Your task to perform on an android device: turn on translation in the chrome app Image 0: 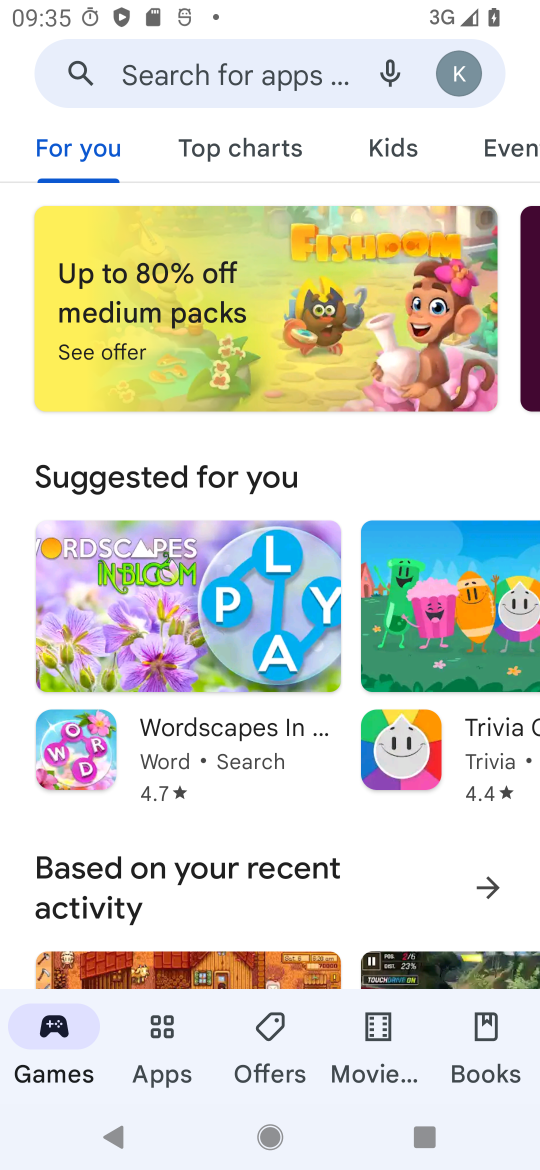
Step 0: press home button
Your task to perform on an android device: turn on translation in the chrome app Image 1: 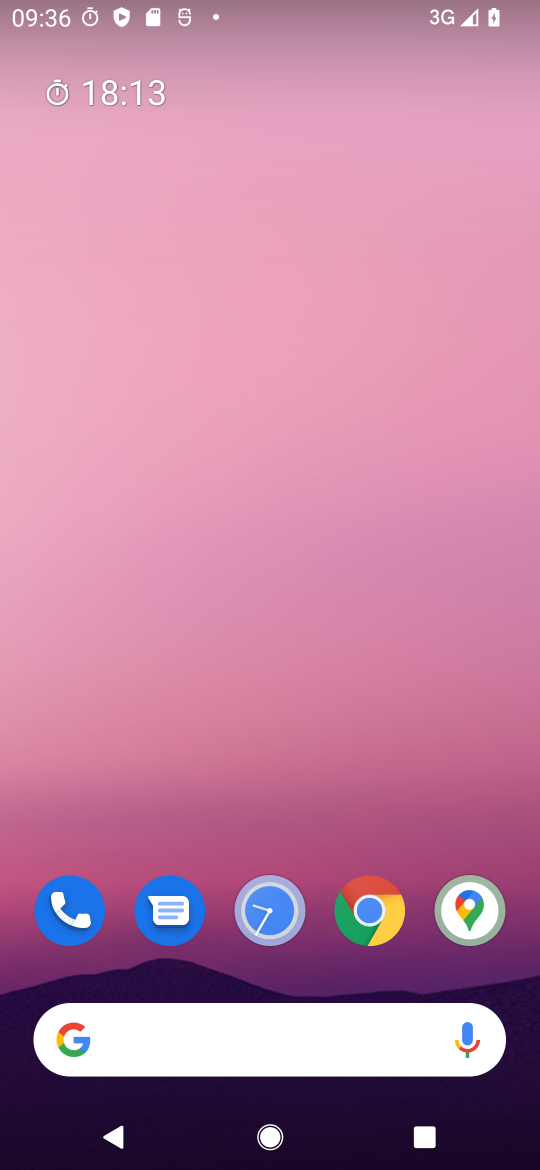
Step 1: drag from (269, 1011) to (374, 18)
Your task to perform on an android device: turn on translation in the chrome app Image 2: 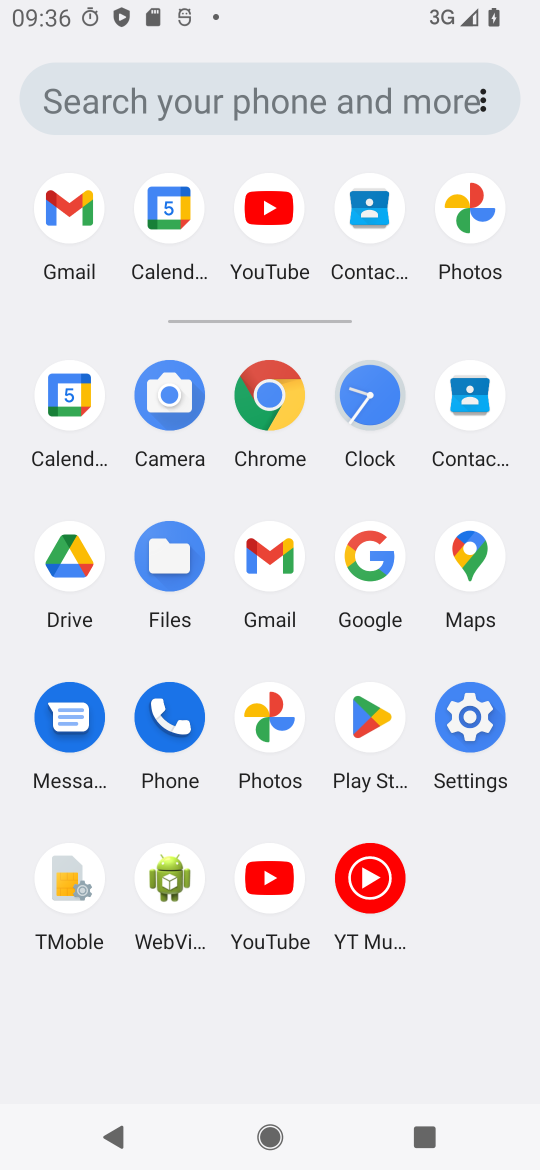
Step 2: click (257, 405)
Your task to perform on an android device: turn on translation in the chrome app Image 3: 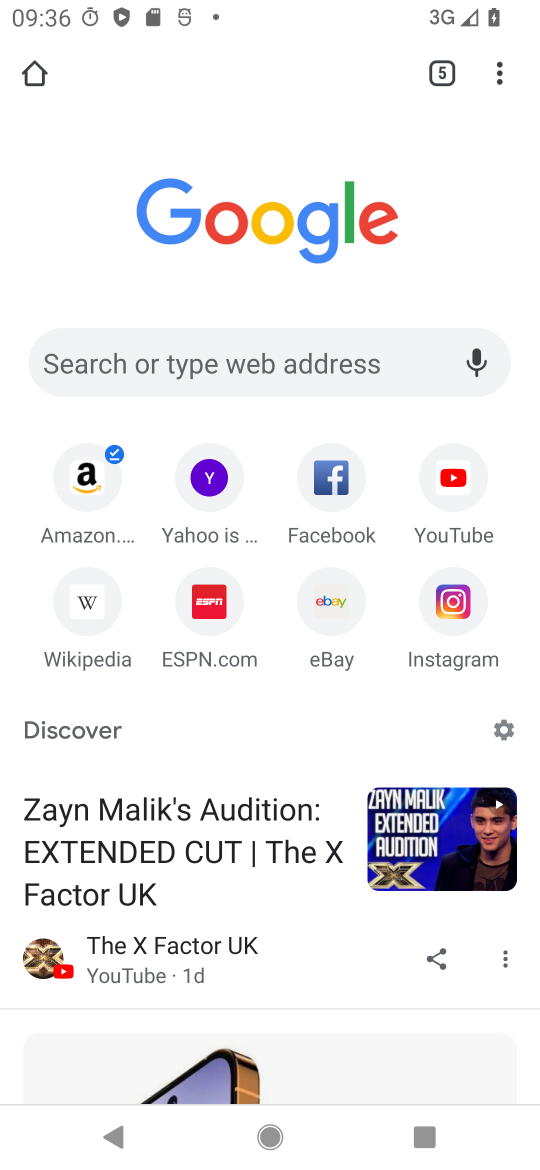
Step 3: click (499, 62)
Your task to perform on an android device: turn on translation in the chrome app Image 4: 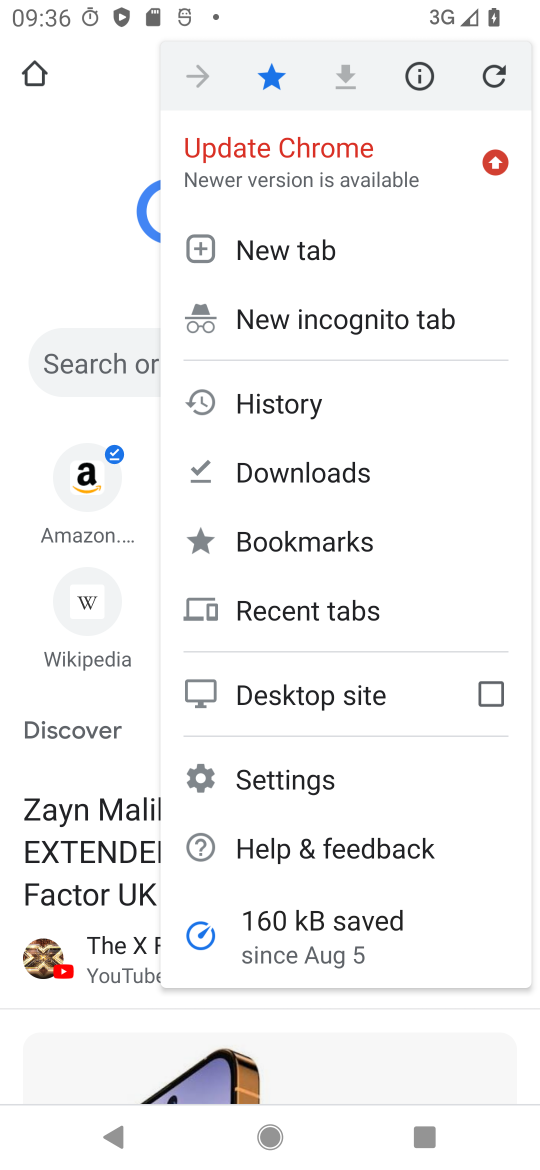
Step 4: click (319, 793)
Your task to perform on an android device: turn on translation in the chrome app Image 5: 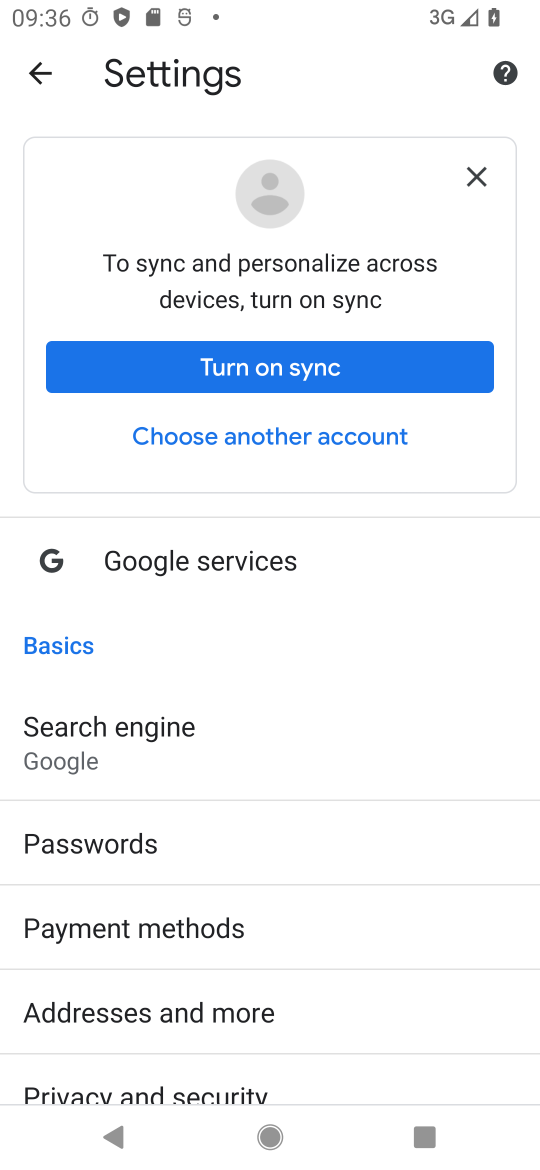
Step 5: drag from (258, 1069) to (310, 278)
Your task to perform on an android device: turn on translation in the chrome app Image 6: 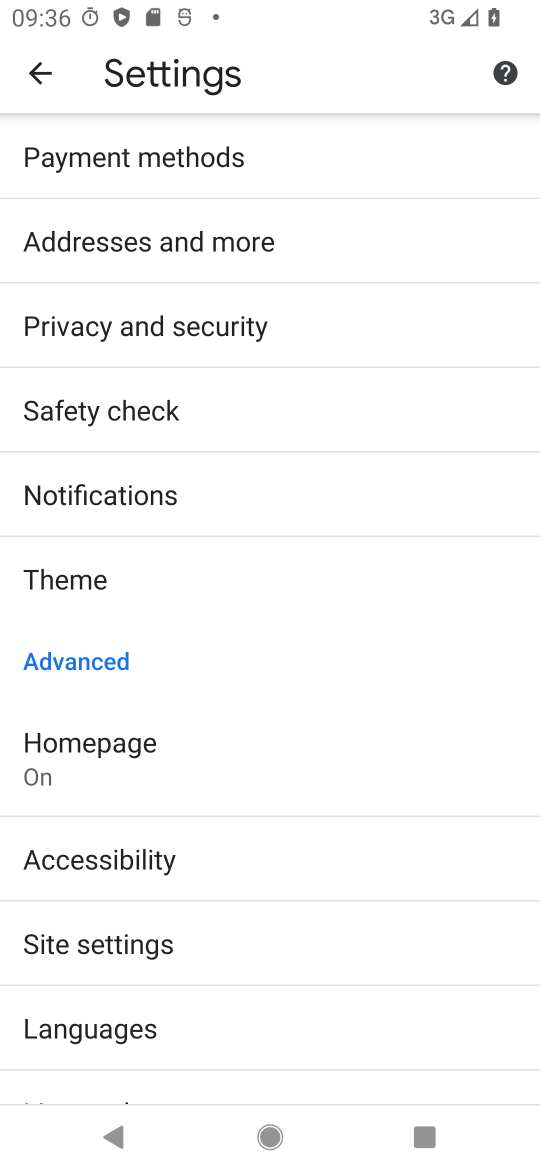
Step 6: drag from (160, 997) to (235, 580)
Your task to perform on an android device: turn on translation in the chrome app Image 7: 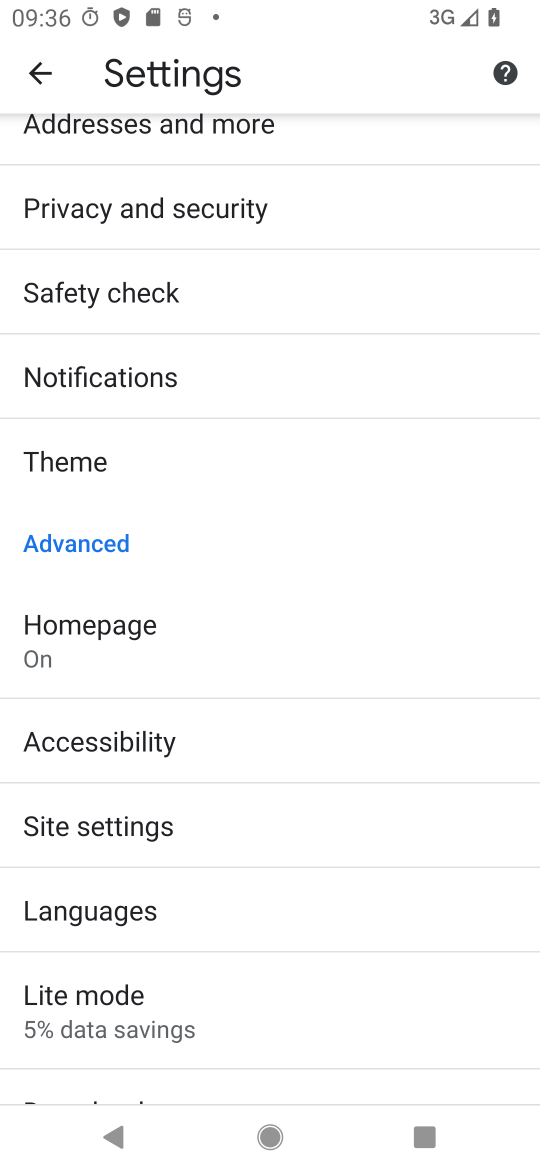
Step 7: click (136, 905)
Your task to perform on an android device: turn on translation in the chrome app Image 8: 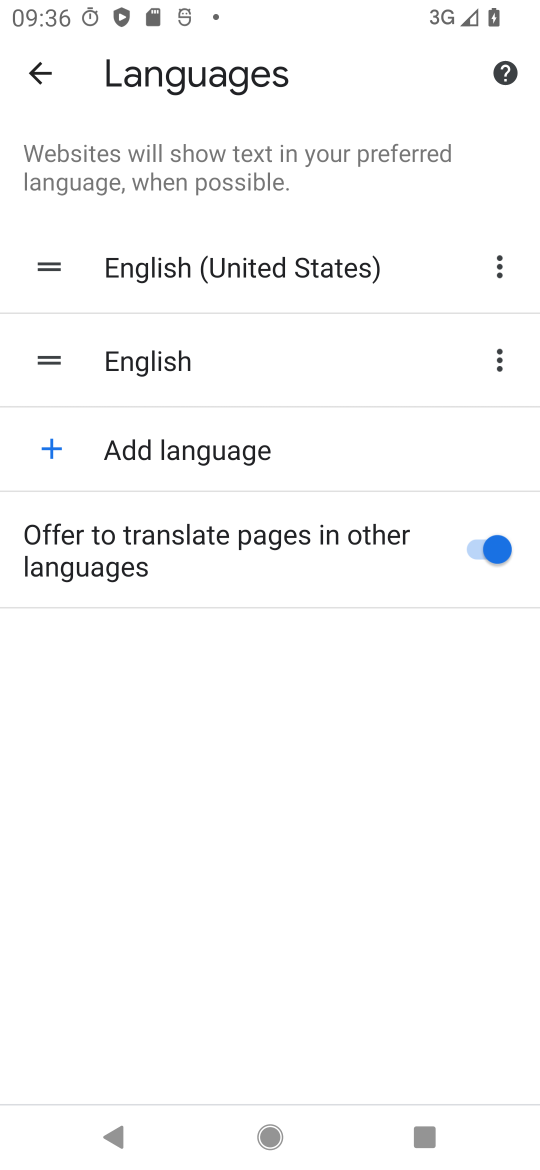
Step 8: task complete